Your task to perform on an android device: Show me recent news Image 0: 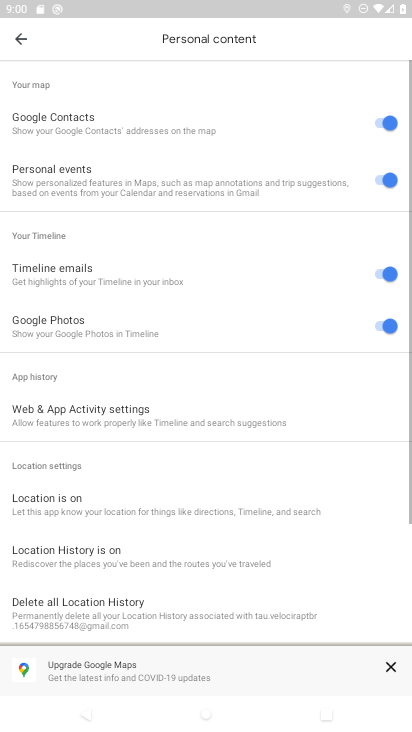
Step 0: drag from (269, 637) to (163, 115)
Your task to perform on an android device: Show me recent news Image 1: 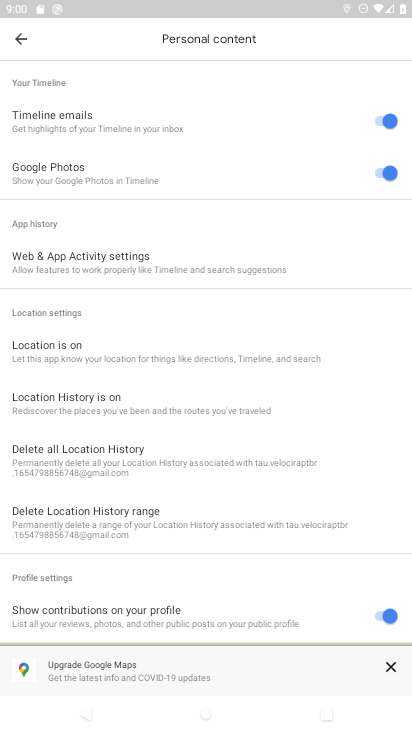
Step 1: press home button
Your task to perform on an android device: Show me recent news Image 2: 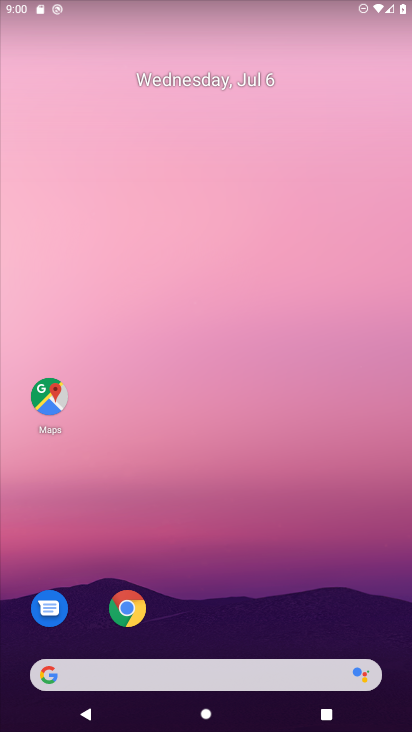
Step 2: drag from (263, 641) to (181, 88)
Your task to perform on an android device: Show me recent news Image 3: 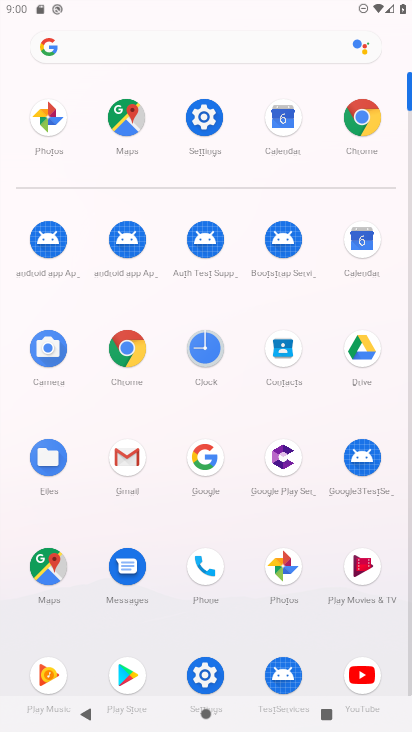
Step 3: click (283, 49)
Your task to perform on an android device: Show me recent news Image 4: 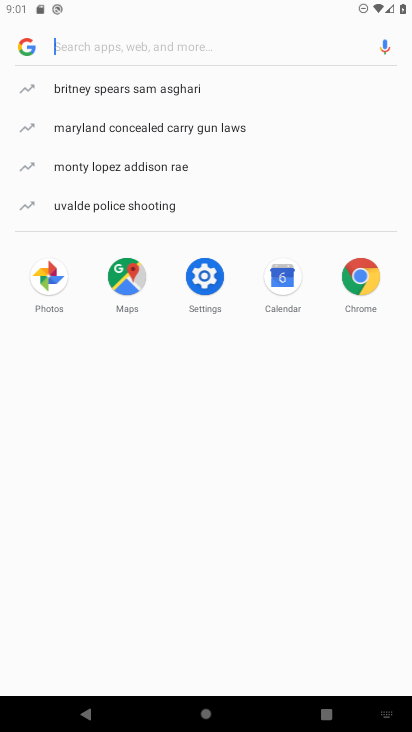
Step 4: type "Show me recent news"
Your task to perform on an android device: Show me recent news Image 5: 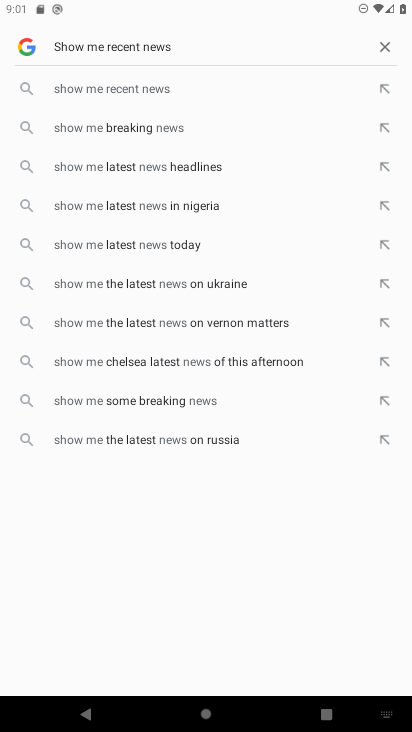
Step 5: click (154, 97)
Your task to perform on an android device: Show me recent news Image 6: 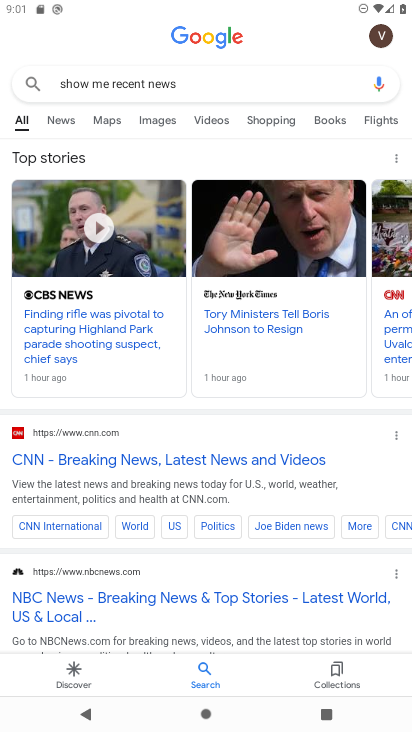
Step 6: task complete